Your task to perform on an android device: See recent photos Image 0: 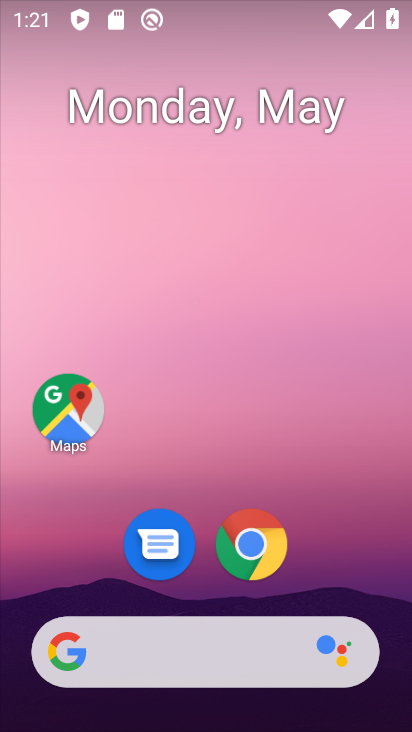
Step 0: drag from (362, 577) to (373, 261)
Your task to perform on an android device: See recent photos Image 1: 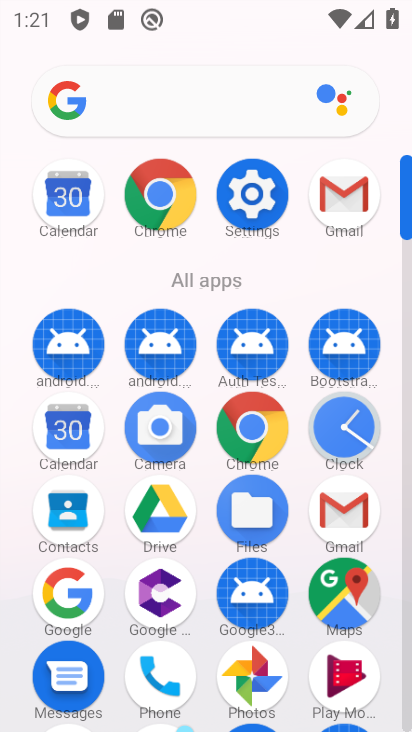
Step 1: click (268, 681)
Your task to perform on an android device: See recent photos Image 2: 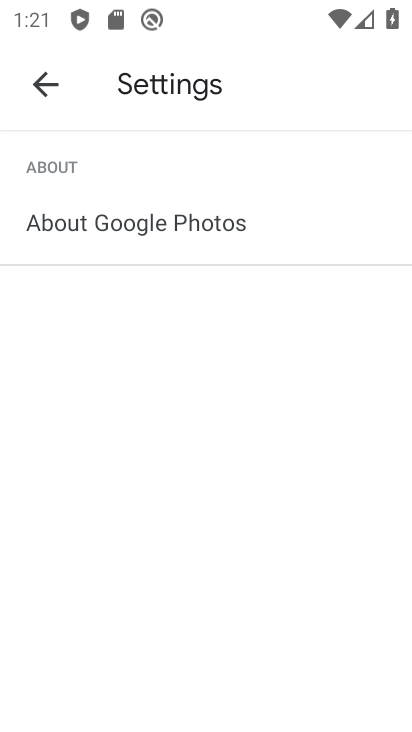
Step 2: click (40, 89)
Your task to perform on an android device: See recent photos Image 3: 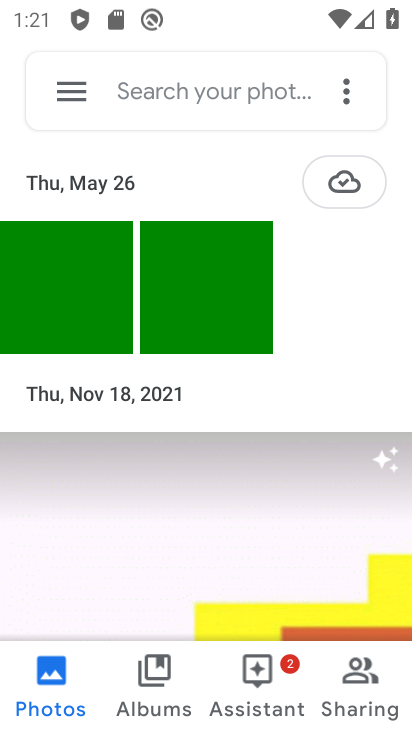
Step 3: click (84, 316)
Your task to perform on an android device: See recent photos Image 4: 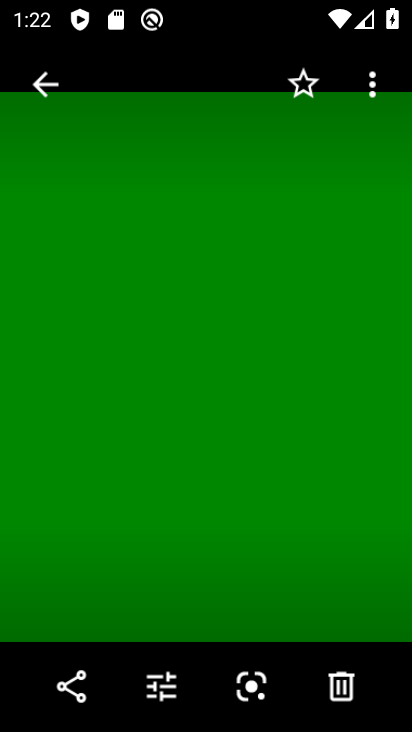
Step 4: task complete